Your task to perform on an android device: Open the phone app and click the voicemail tab. Image 0: 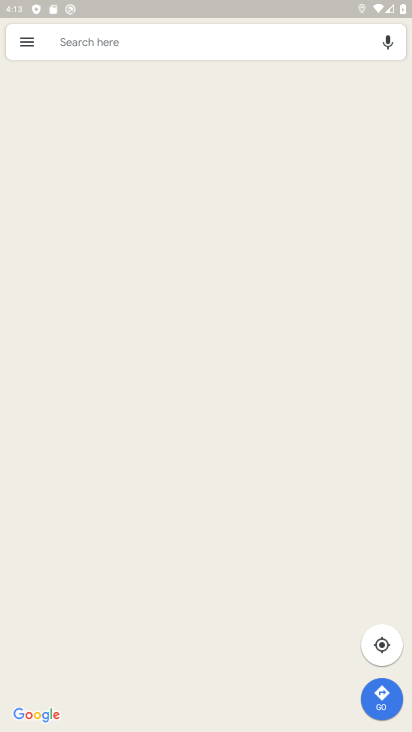
Step 0: press back button
Your task to perform on an android device: Open the phone app and click the voicemail tab. Image 1: 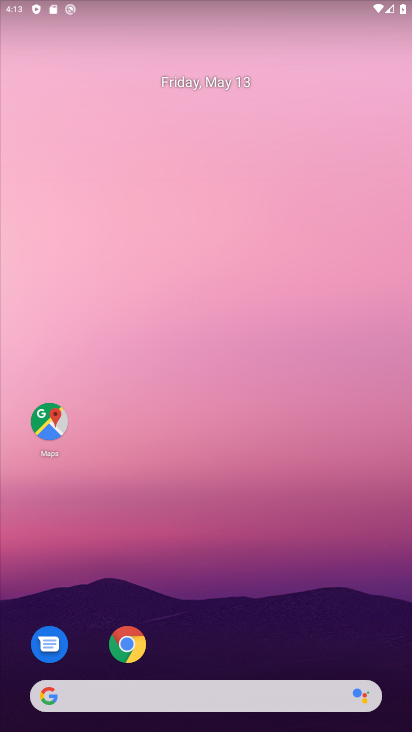
Step 1: drag from (150, 660) to (323, 26)
Your task to perform on an android device: Open the phone app and click the voicemail tab. Image 2: 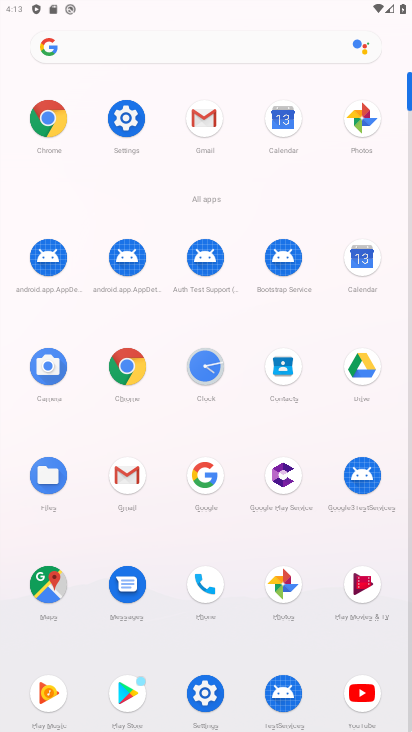
Step 2: click (205, 597)
Your task to perform on an android device: Open the phone app and click the voicemail tab. Image 3: 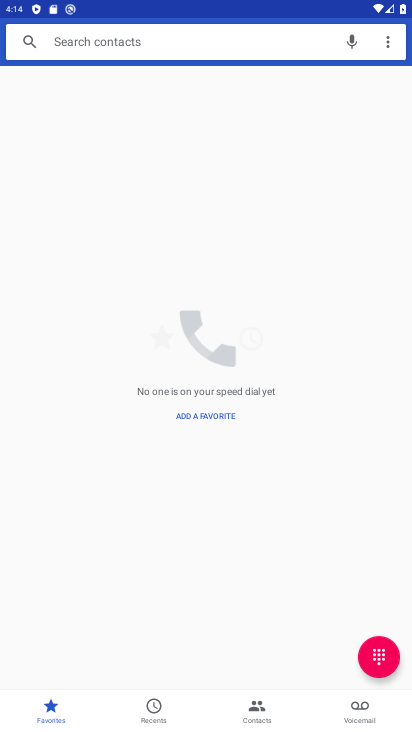
Step 3: click (354, 709)
Your task to perform on an android device: Open the phone app and click the voicemail tab. Image 4: 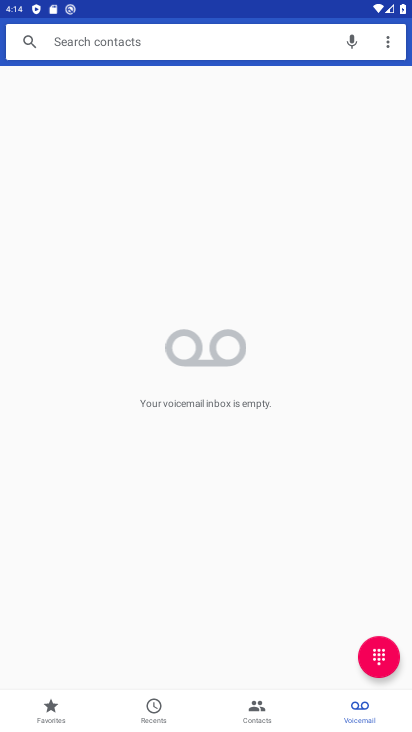
Step 4: task complete